Your task to perform on an android device: Open calendar and show me the first week of next month Image 0: 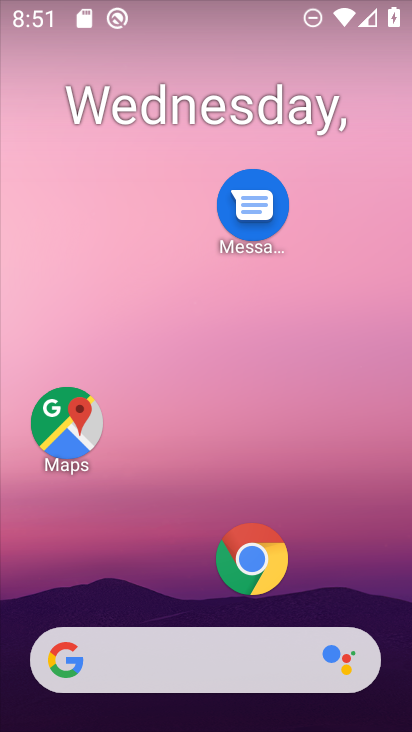
Step 0: drag from (275, 655) to (277, 51)
Your task to perform on an android device: Open calendar and show me the first week of next month Image 1: 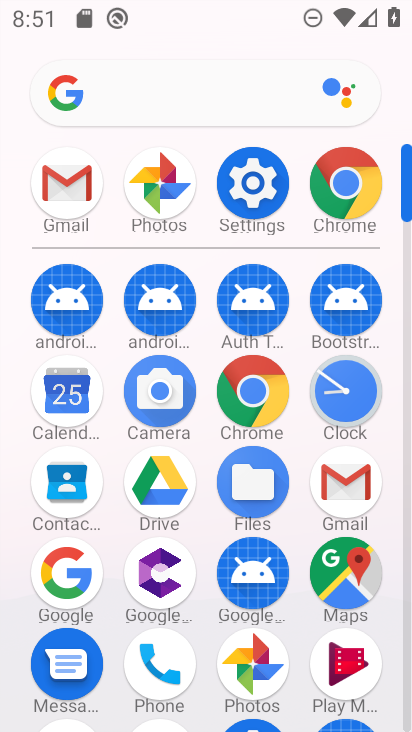
Step 1: click (79, 414)
Your task to perform on an android device: Open calendar and show me the first week of next month Image 2: 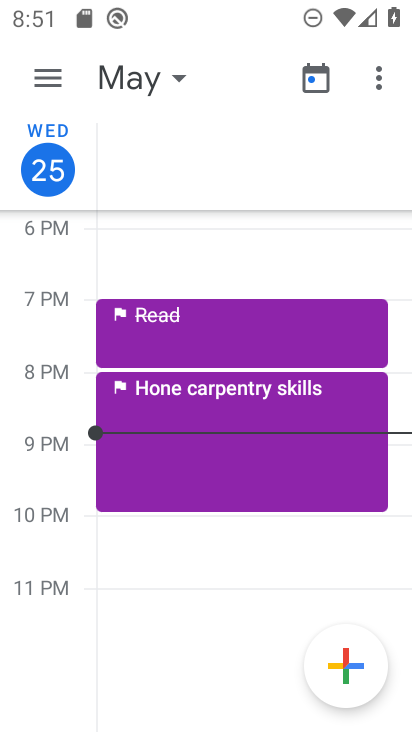
Step 2: click (175, 75)
Your task to perform on an android device: Open calendar and show me the first week of next month Image 3: 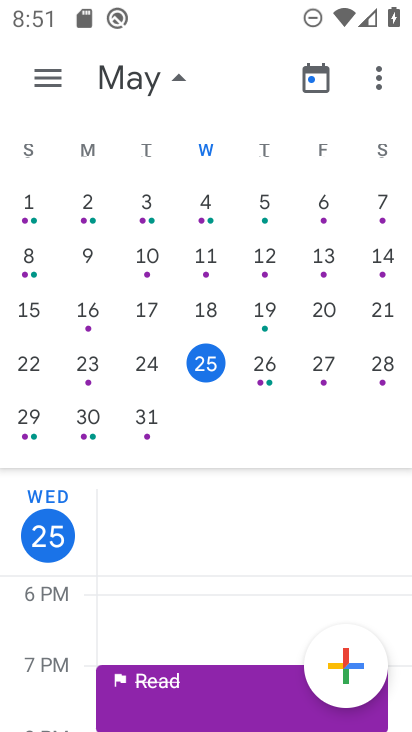
Step 3: drag from (331, 343) to (7, 343)
Your task to perform on an android device: Open calendar and show me the first week of next month Image 4: 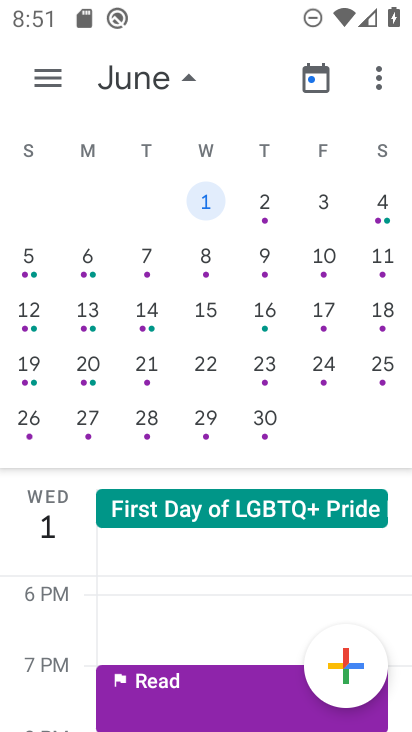
Step 4: click (202, 203)
Your task to perform on an android device: Open calendar and show me the first week of next month Image 5: 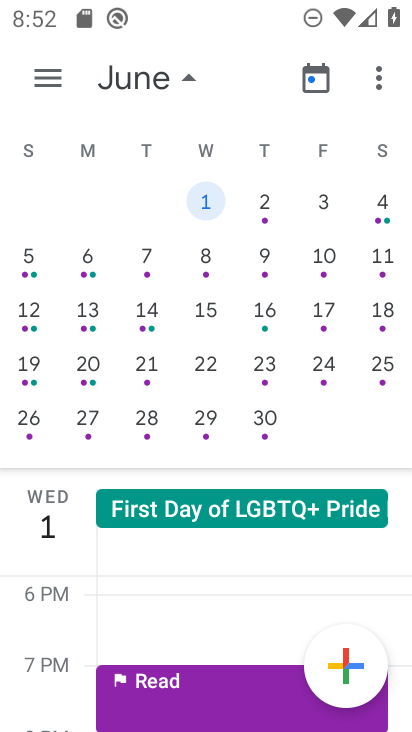
Step 5: task complete